Your task to perform on an android device: Go to eBay Image 0: 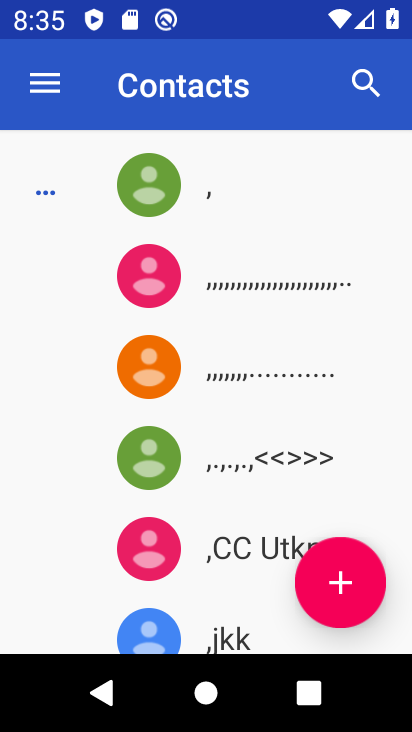
Step 0: press home button
Your task to perform on an android device: Go to eBay Image 1: 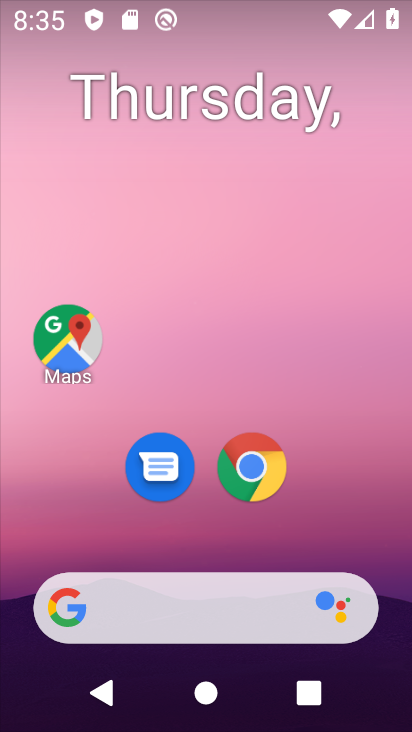
Step 1: click (260, 470)
Your task to perform on an android device: Go to eBay Image 2: 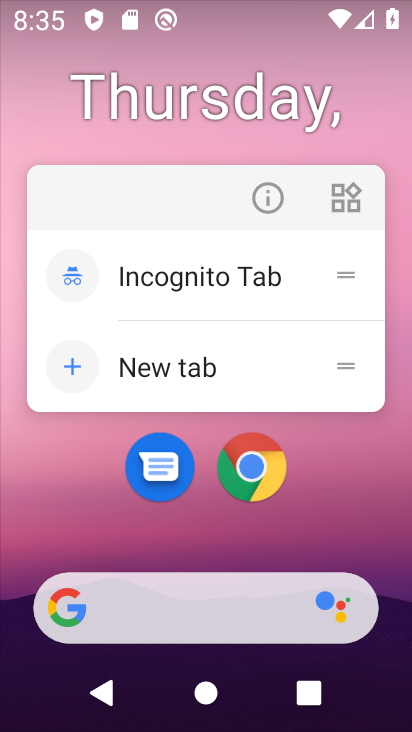
Step 2: click (260, 470)
Your task to perform on an android device: Go to eBay Image 3: 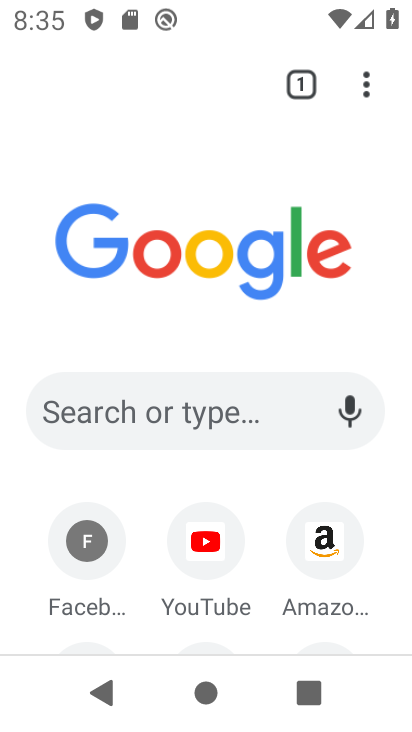
Step 3: click (236, 413)
Your task to perform on an android device: Go to eBay Image 4: 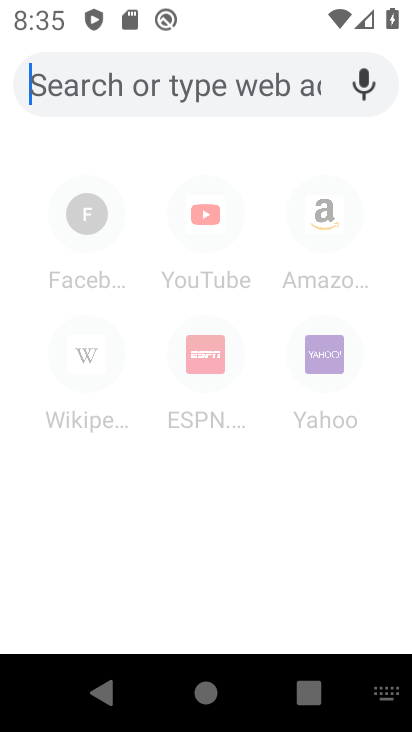
Step 4: type "ebay"
Your task to perform on an android device: Go to eBay Image 5: 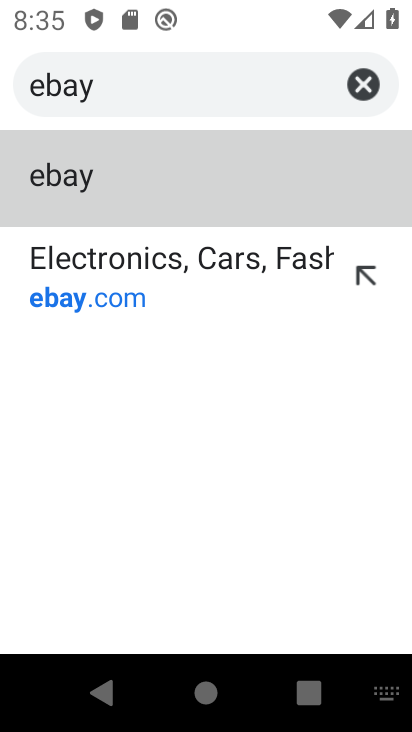
Step 5: click (43, 201)
Your task to perform on an android device: Go to eBay Image 6: 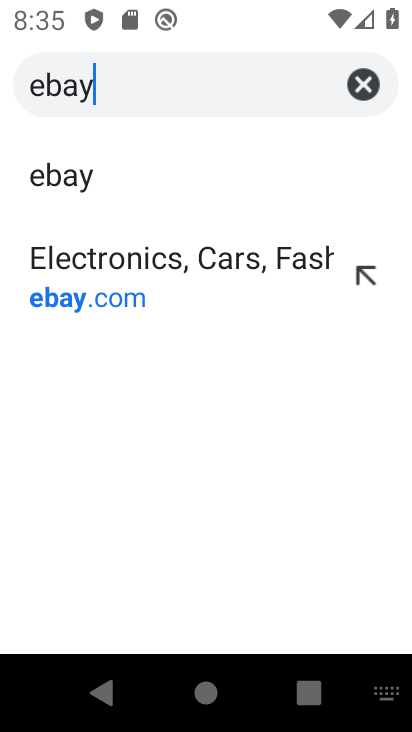
Step 6: click (49, 190)
Your task to perform on an android device: Go to eBay Image 7: 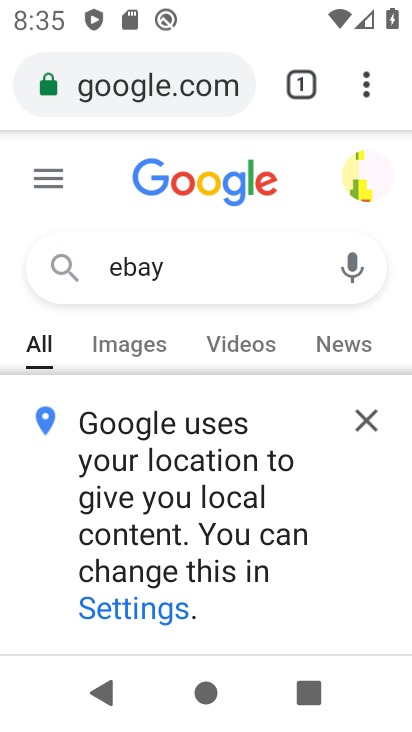
Step 7: click (368, 425)
Your task to perform on an android device: Go to eBay Image 8: 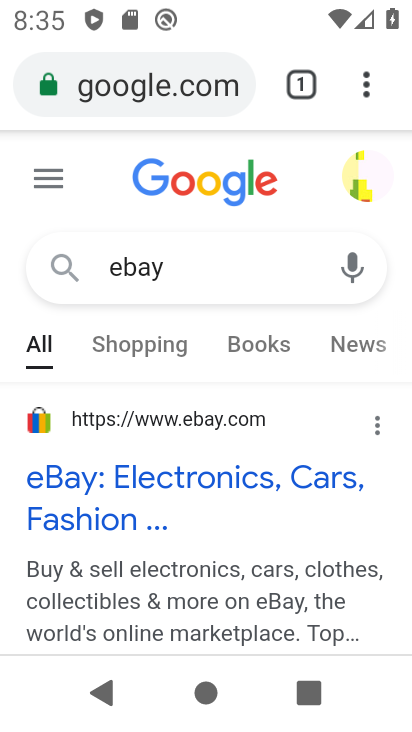
Step 8: click (159, 485)
Your task to perform on an android device: Go to eBay Image 9: 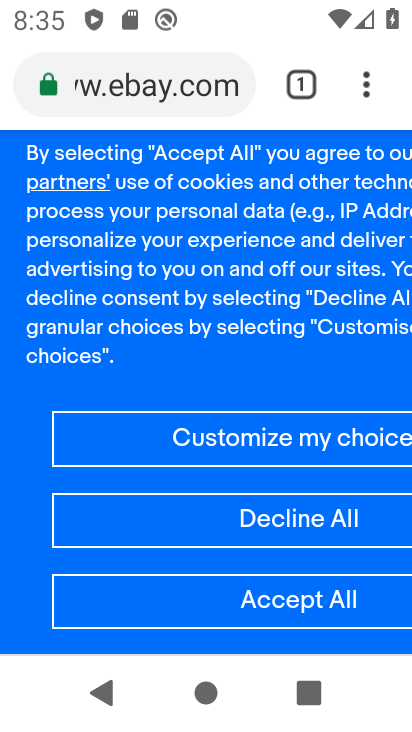
Step 9: task complete